Your task to perform on an android device: toggle notification dots Image 0: 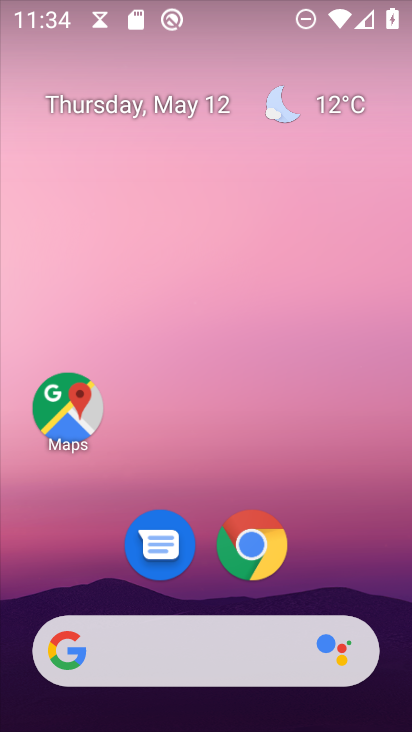
Step 0: press home button
Your task to perform on an android device: toggle notification dots Image 1: 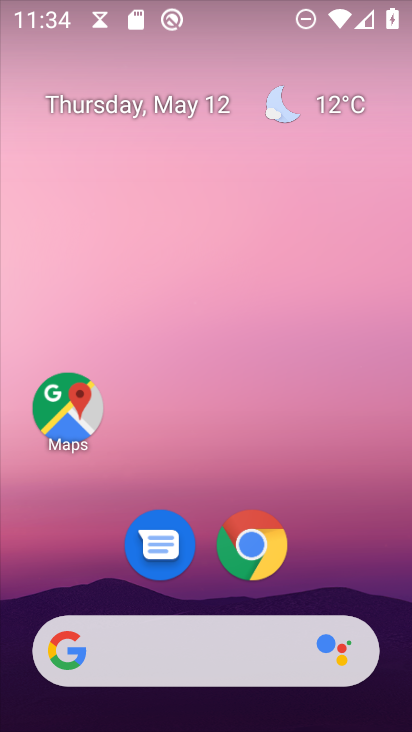
Step 1: drag from (207, 587) to (246, 133)
Your task to perform on an android device: toggle notification dots Image 2: 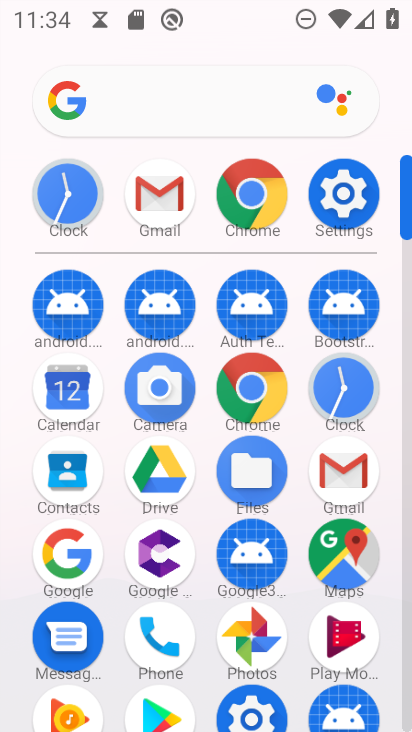
Step 2: click (340, 184)
Your task to perform on an android device: toggle notification dots Image 3: 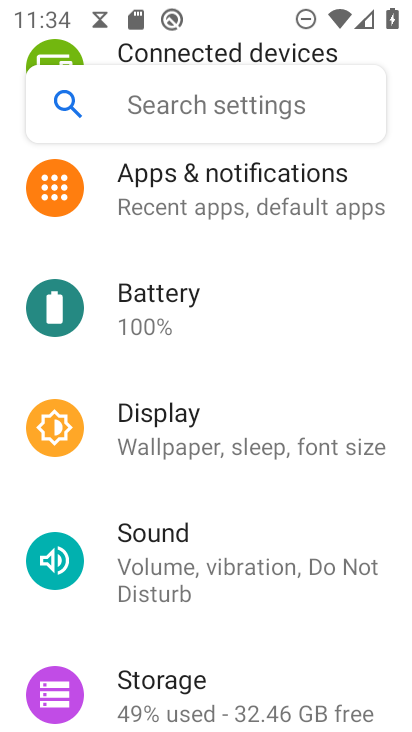
Step 3: click (249, 193)
Your task to perform on an android device: toggle notification dots Image 4: 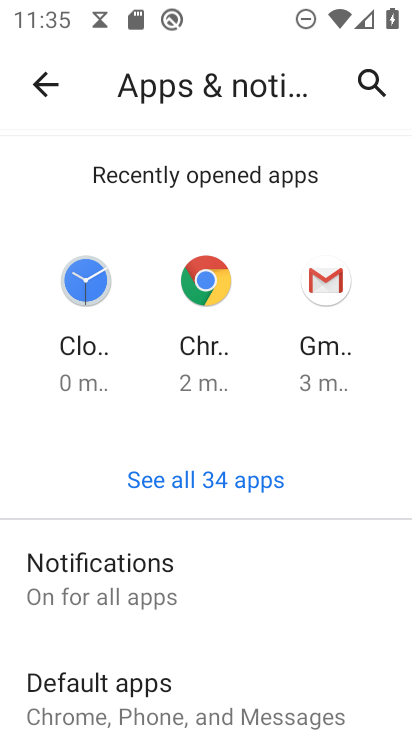
Step 4: click (196, 573)
Your task to perform on an android device: toggle notification dots Image 5: 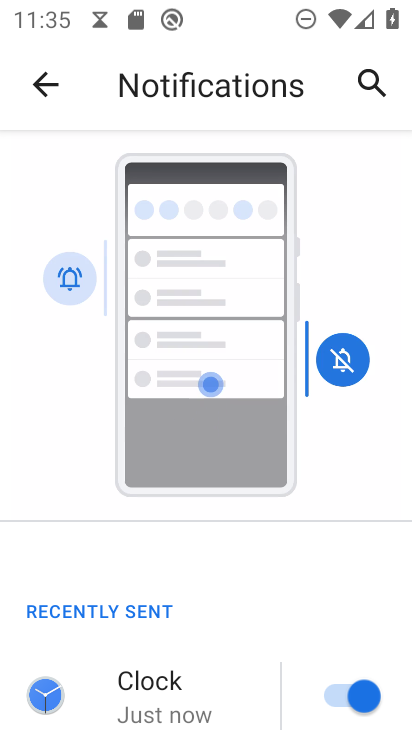
Step 5: drag from (205, 676) to (244, 251)
Your task to perform on an android device: toggle notification dots Image 6: 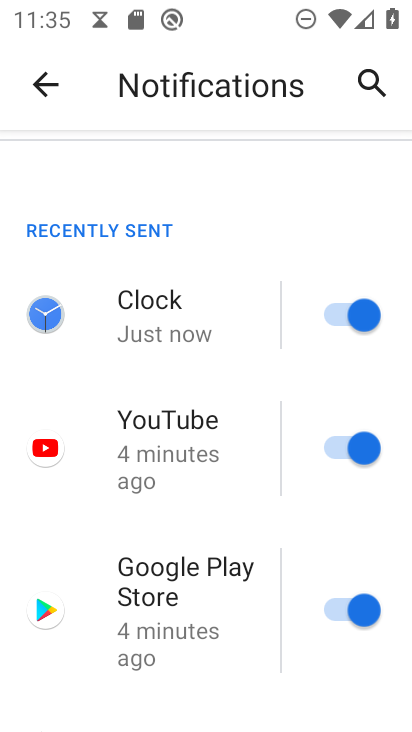
Step 6: drag from (238, 672) to (258, 176)
Your task to perform on an android device: toggle notification dots Image 7: 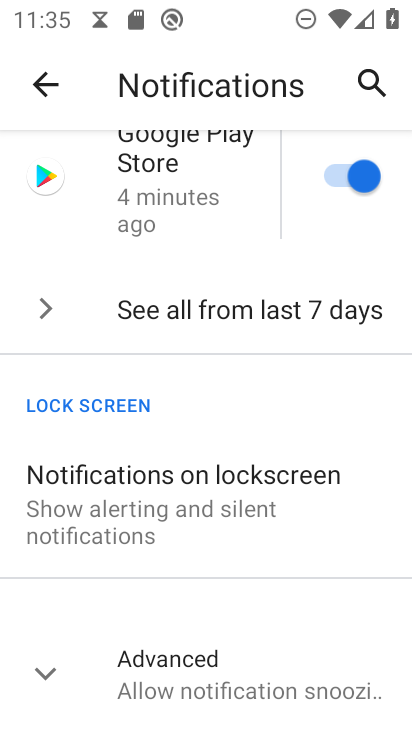
Step 7: click (40, 669)
Your task to perform on an android device: toggle notification dots Image 8: 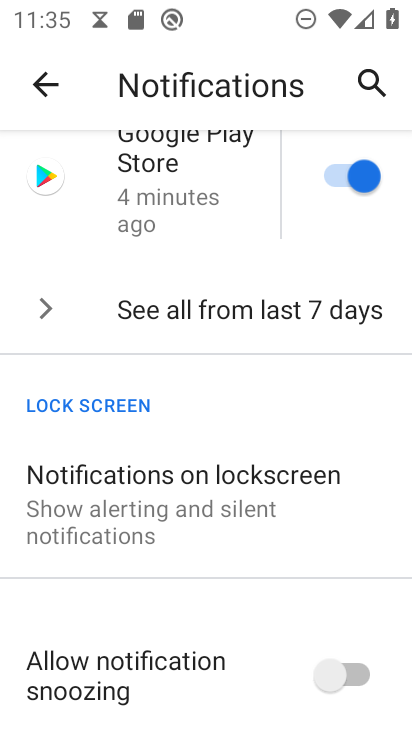
Step 8: drag from (182, 682) to (177, 168)
Your task to perform on an android device: toggle notification dots Image 9: 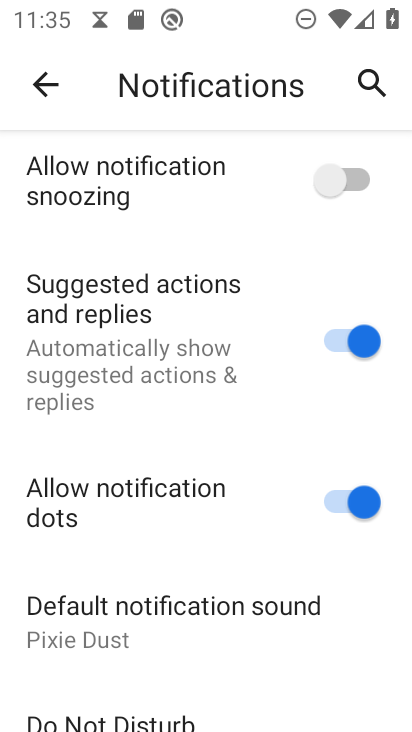
Step 9: drag from (224, 668) to (228, 295)
Your task to perform on an android device: toggle notification dots Image 10: 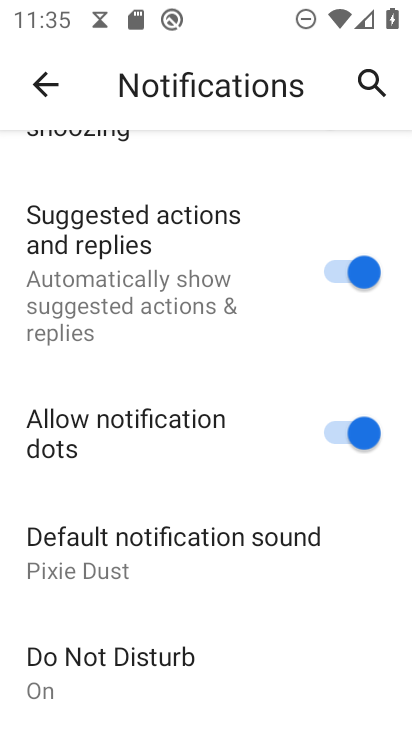
Step 10: click (340, 430)
Your task to perform on an android device: toggle notification dots Image 11: 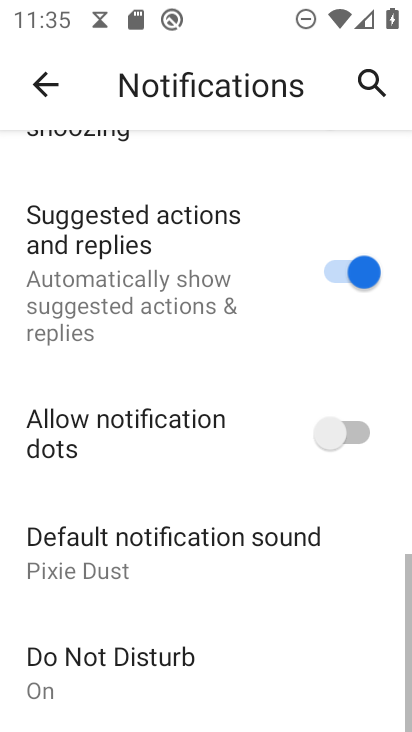
Step 11: task complete